Your task to perform on an android device: add a contact in the contacts app Image 0: 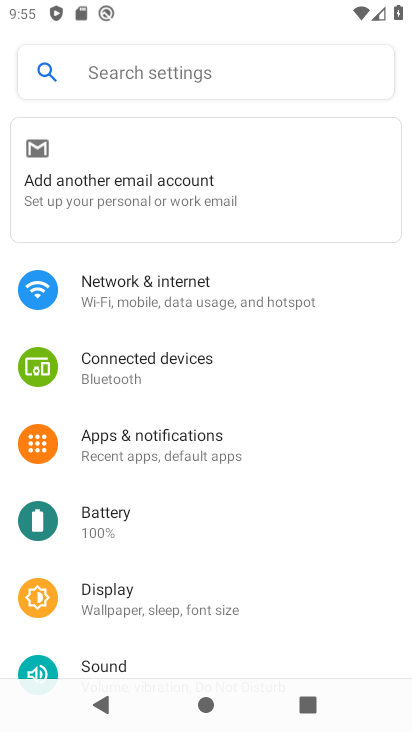
Step 0: press back button
Your task to perform on an android device: add a contact in the contacts app Image 1: 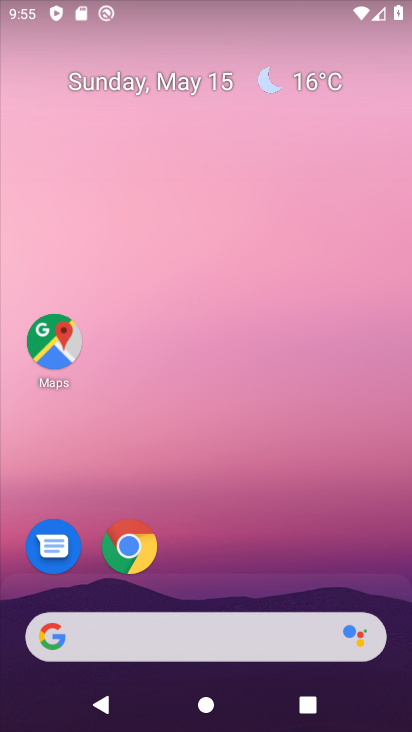
Step 1: press home button
Your task to perform on an android device: add a contact in the contacts app Image 2: 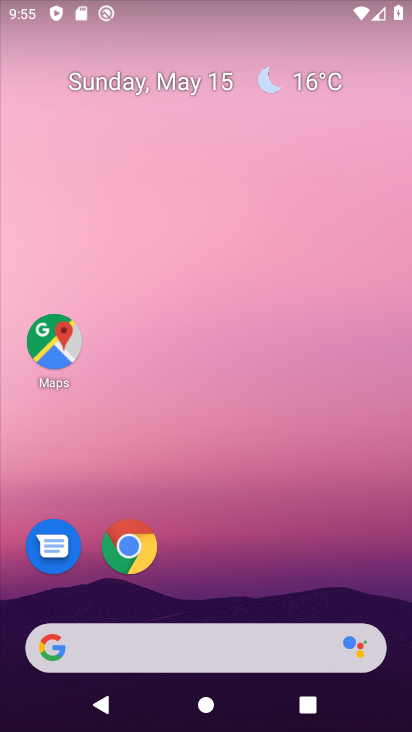
Step 2: drag from (260, 645) to (179, 59)
Your task to perform on an android device: add a contact in the contacts app Image 3: 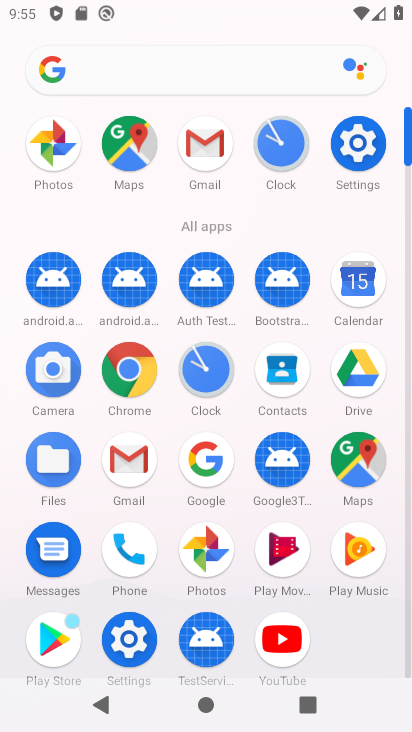
Step 3: click (281, 385)
Your task to perform on an android device: add a contact in the contacts app Image 4: 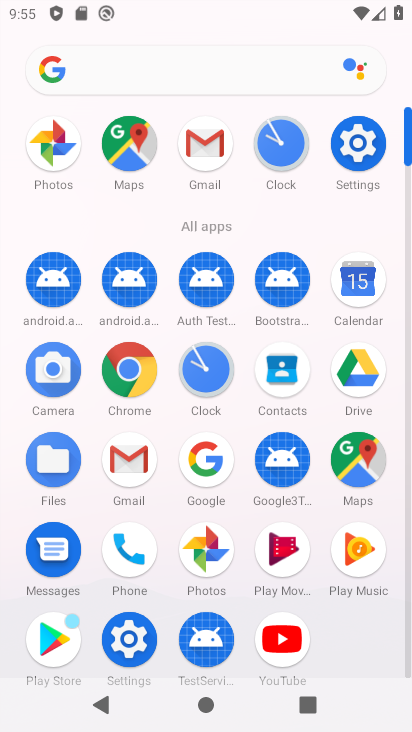
Step 4: click (284, 381)
Your task to perform on an android device: add a contact in the contacts app Image 5: 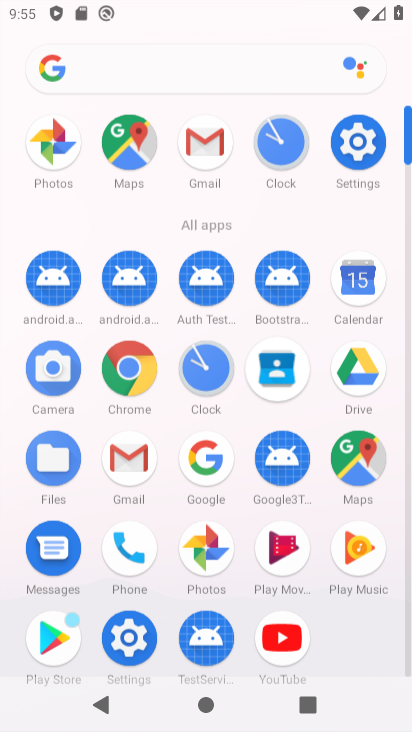
Step 5: click (286, 379)
Your task to perform on an android device: add a contact in the contacts app Image 6: 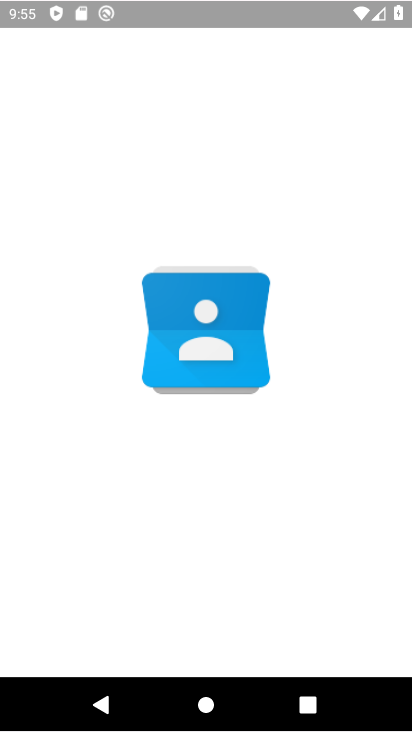
Step 6: click (285, 374)
Your task to perform on an android device: add a contact in the contacts app Image 7: 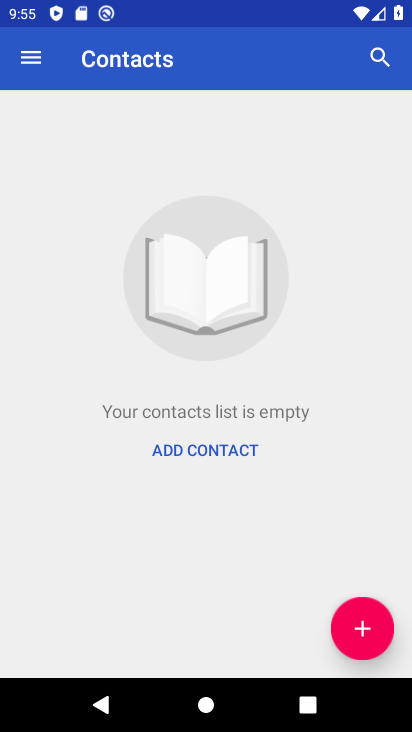
Step 7: click (367, 630)
Your task to perform on an android device: add a contact in the contacts app Image 8: 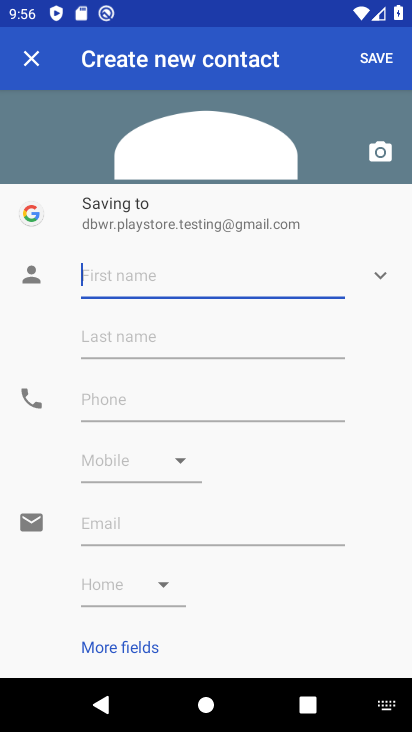
Step 8: type "gfjhghih"
Your task to perform on an android device: add a contact in the contacts app Image 9: 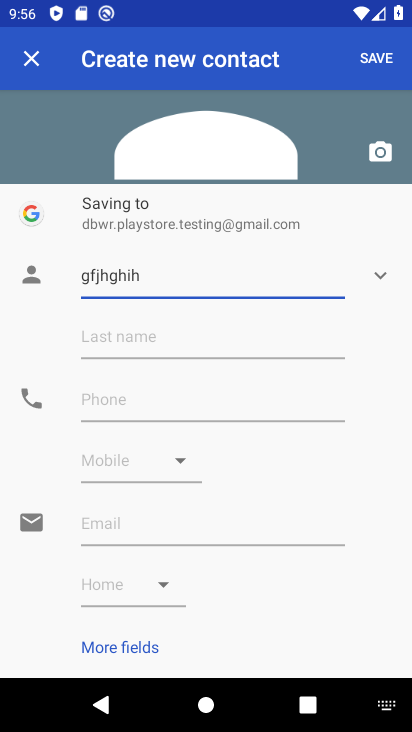
Step 9: click (108, 398)
Your task to perform on an android device: add a contact in the contacts app Image 10: 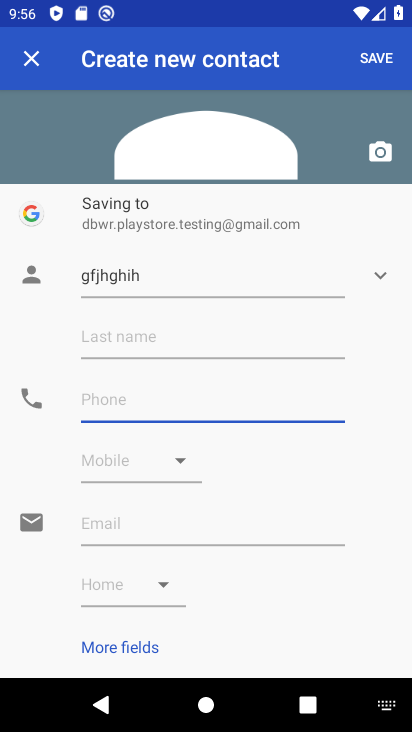
Step 10: click (108, 398)
Your task to perform on an android device: add a contact in the contacts app Image 11: 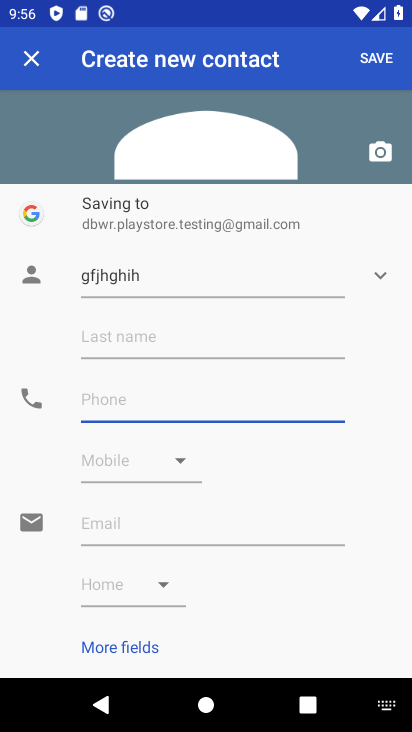
Step 11: click (108, 398)
Your task to perform on an android device: add a contact in the contacts app Image 12: 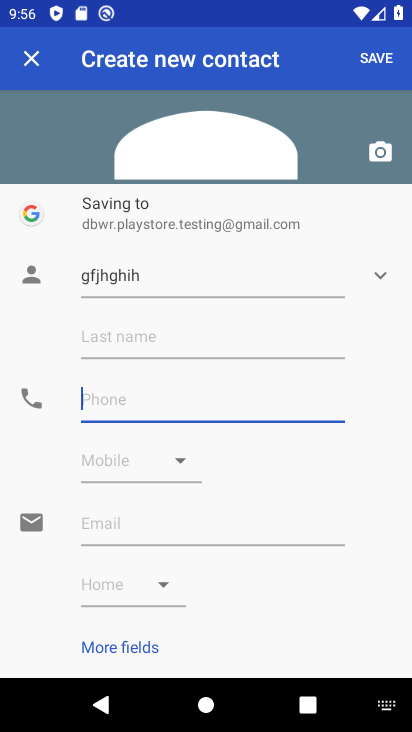
Step 12: type "868776698099"
Your task to perform on an android device: add a contact in the contacts app Image 13: 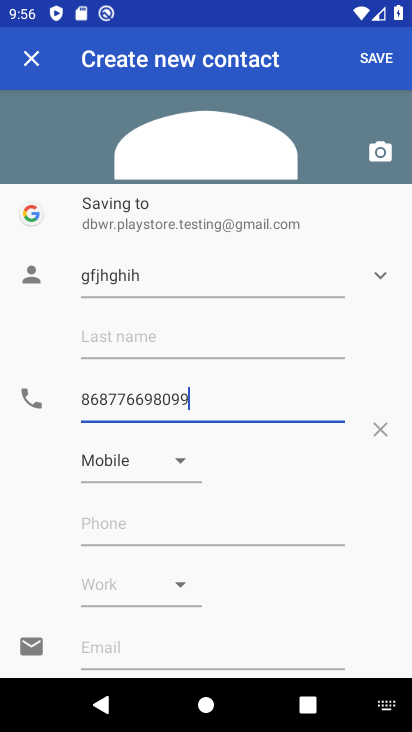
Step 13: click (369, 59)
Your task to perform on an android device: add a contact in the contacts app Image 14: 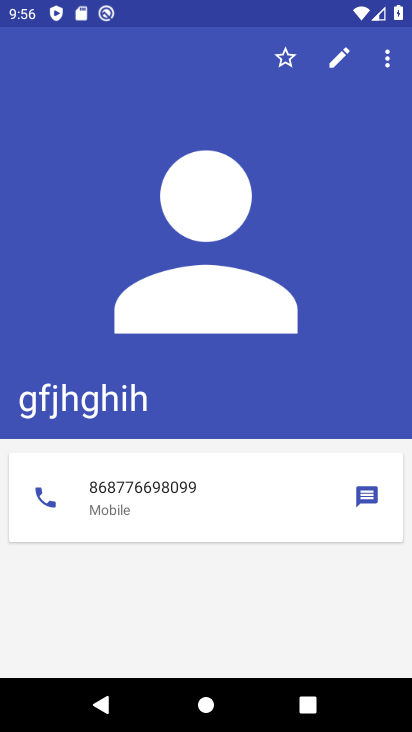
Step 14: task complete